Your task to perform on an android device: turn on bluetooth scan Image 0: 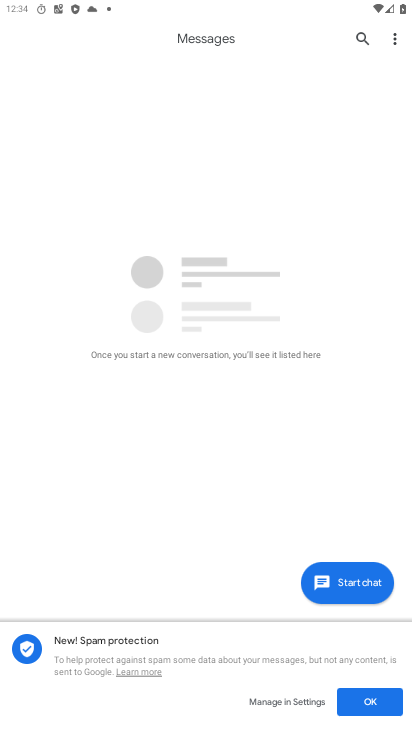
Step 0: press home button
Your task to perform on an android device: turn on bluetooth scan Image 1: 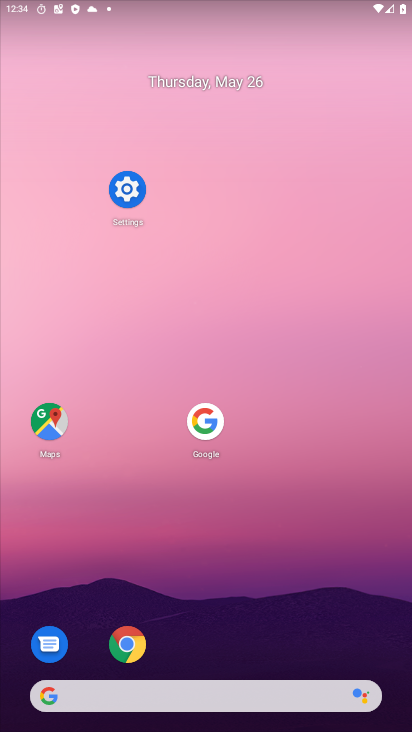
Step 1: drag from (253, 575) to (345, 102)
Your task to perform on an android device: turn on bluetooth scan Image 2: 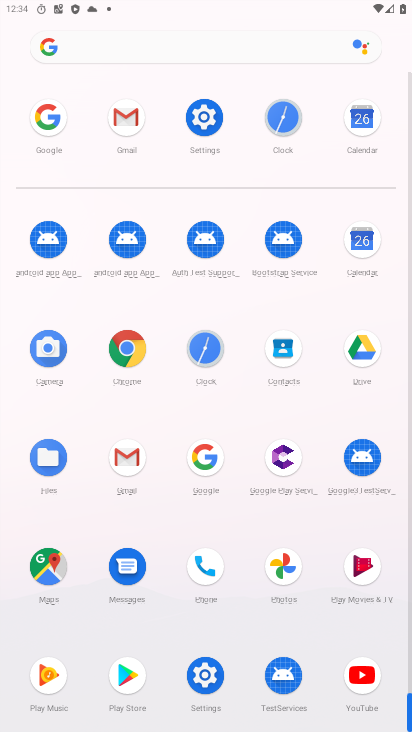
Step 2: click (200, 125)
Your task to perform on an android device: turn on bluetooth scan Image 3: 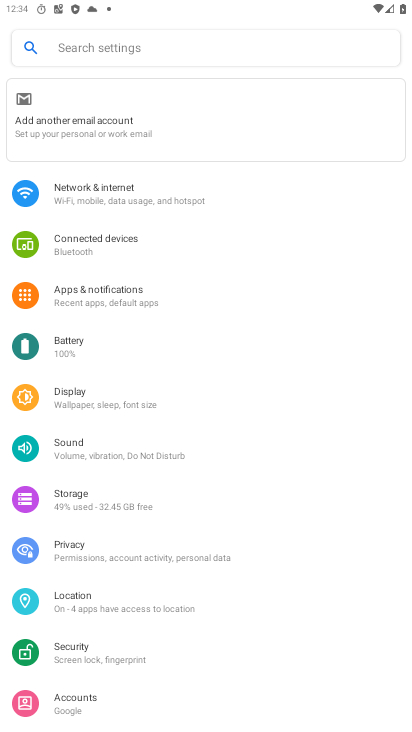
Step 3: drag from (213, 535) to (191, 374)
Your task to perform on an android device: turn on bluetooth scan Image 4: 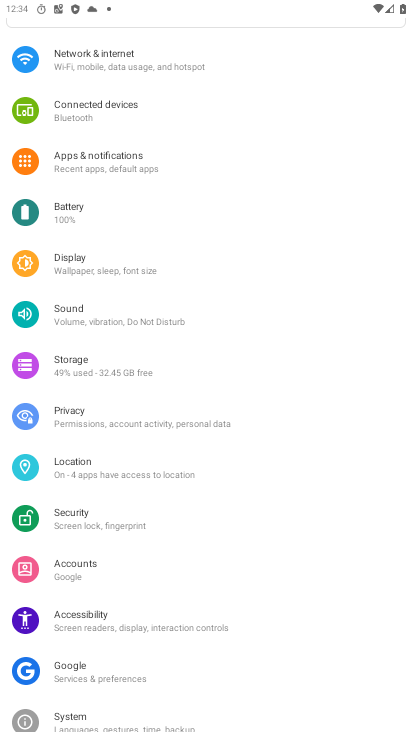
Step 4: click (110, 468)
Your task to perform on an android device: turn on bluetooth scan Image 5: 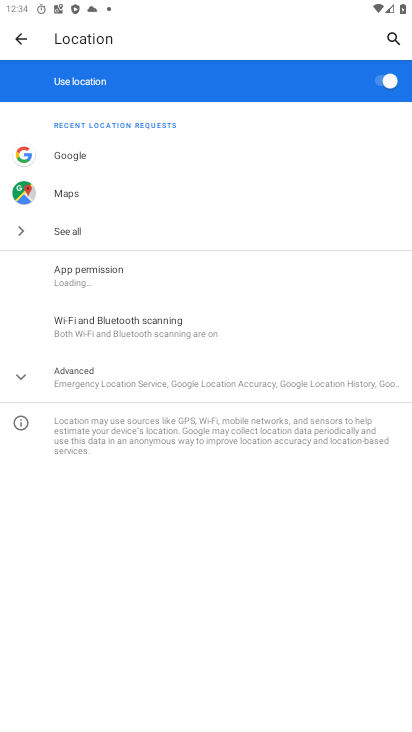
Step 5: click (68, 375)
Your task to perform on an android device: turn on bluetooth scan Image 6: 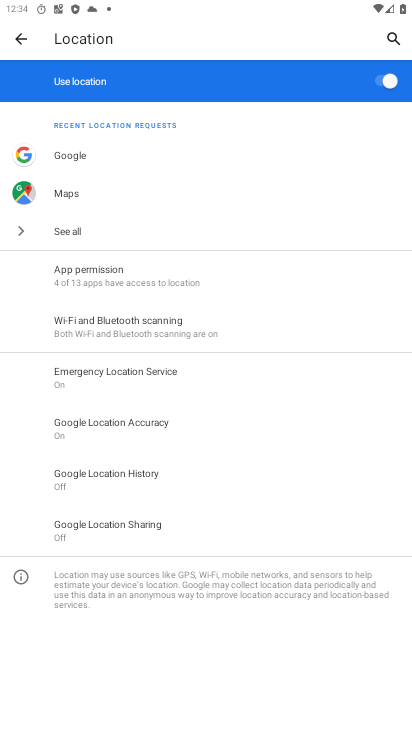
Step 6: click (147, 326)
Your task to perform on an android device: turn on bluetooth scan Image 7: 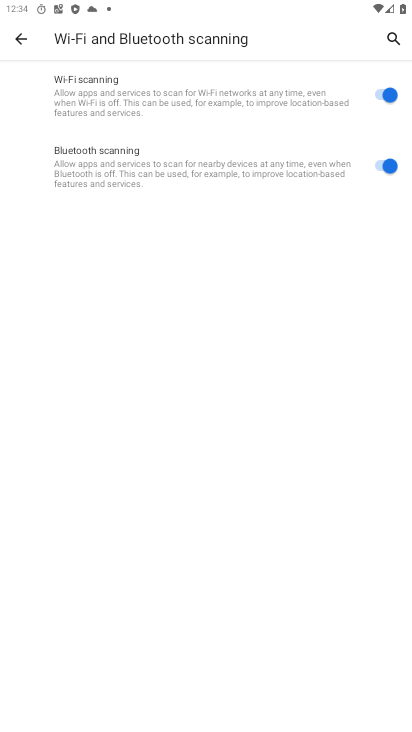
Step 7: task complete